Your task to perform on an android device: turn on improve location accuracy Image 0: 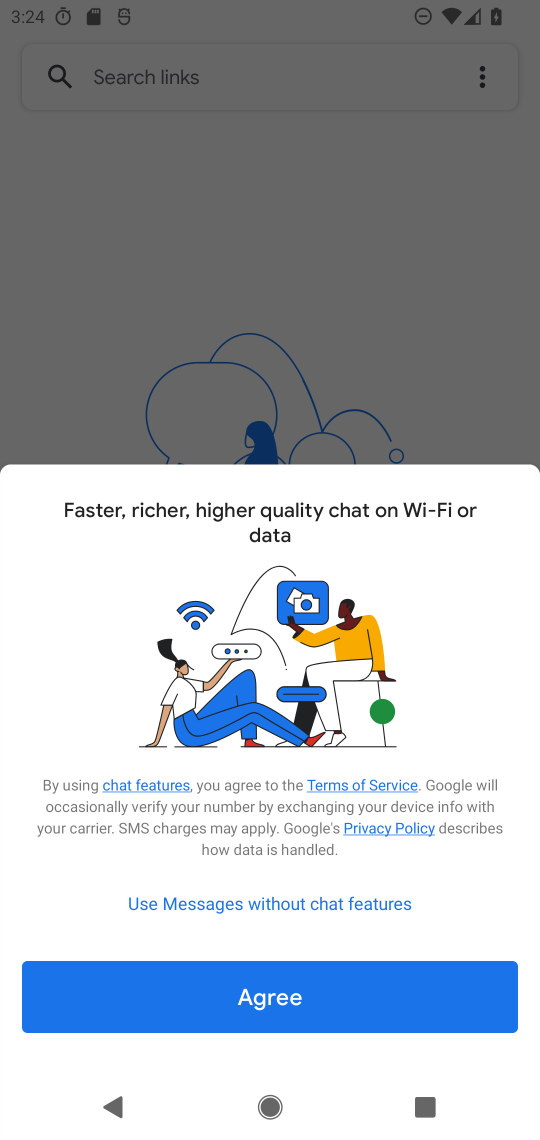
Step 0: press home button
Your task to perform on an android device: turn on improve location accuracy Image 1: 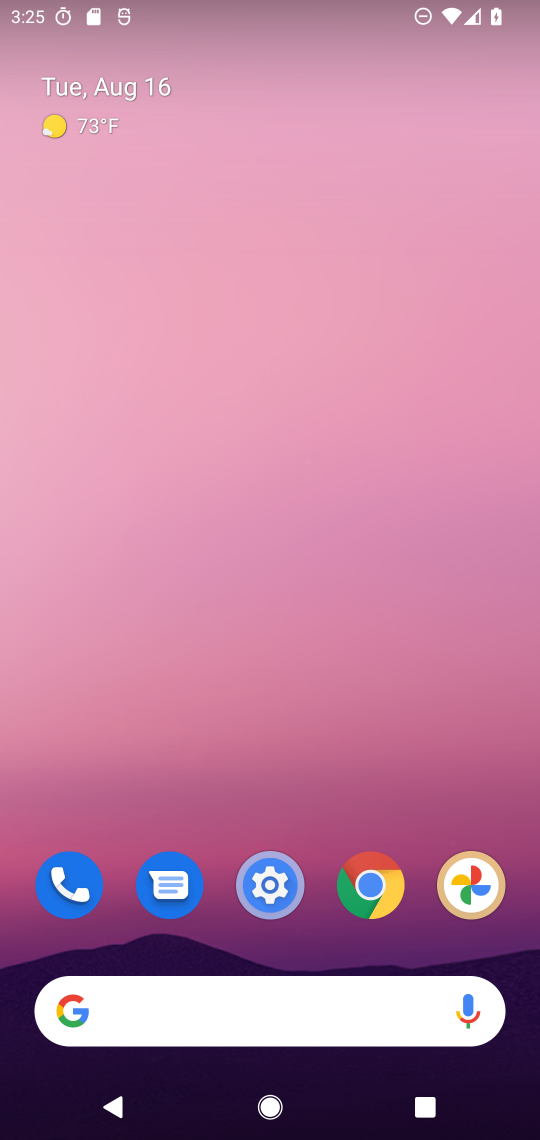
Step 1: drag from (310, 886) to (294, 92)
Your task to perform on an android device: turn on improve location accuracy Image 2: 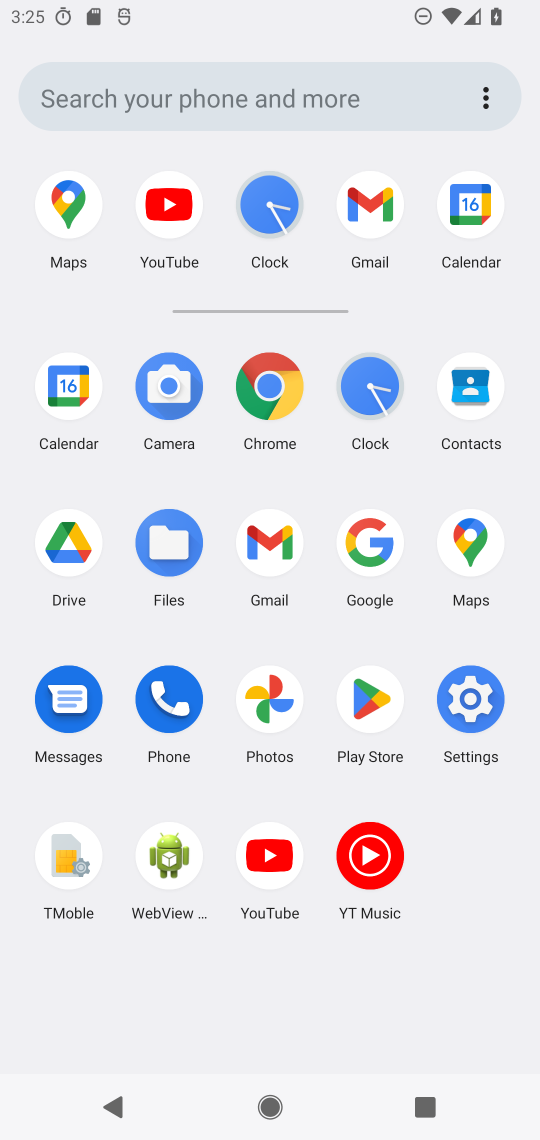
Step 2: click (464, 676)
Your task to perform on an android device: turn on improve location accuracy Image 3: 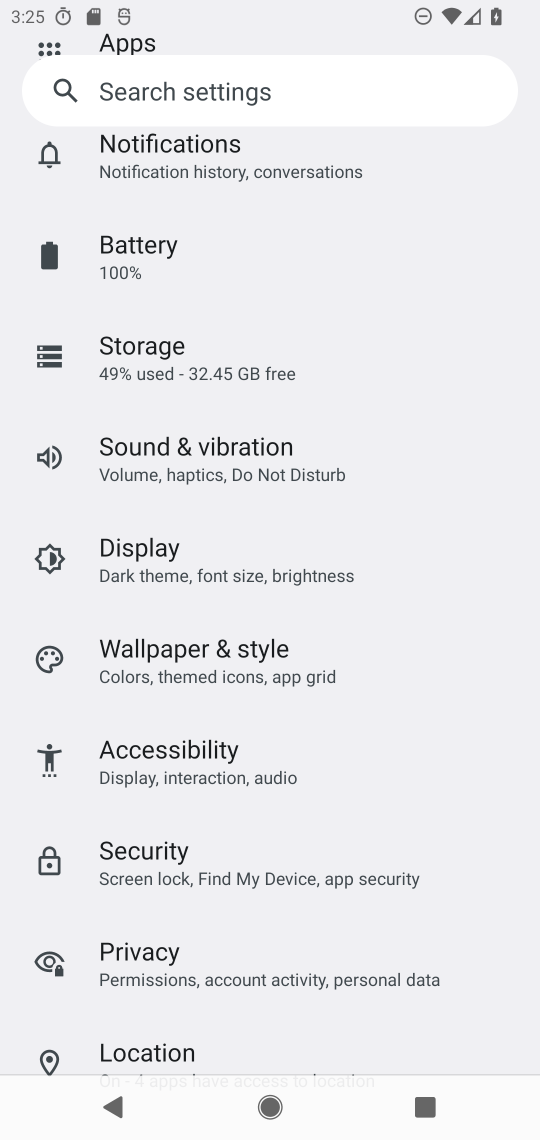
Step 3: drag from (234, 937) to (339, 217)
Your task to perform on an android device: turn on improve location accuracy Image 4: 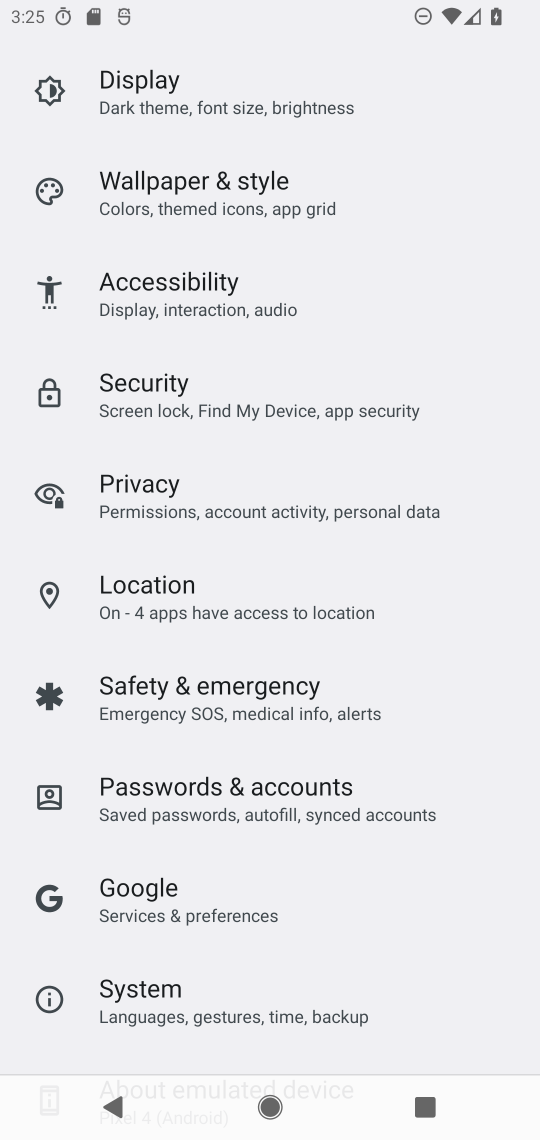
Step 4: click (220, 586)
Your task to perform on an android device: turn on improve location accuracy Image 5: 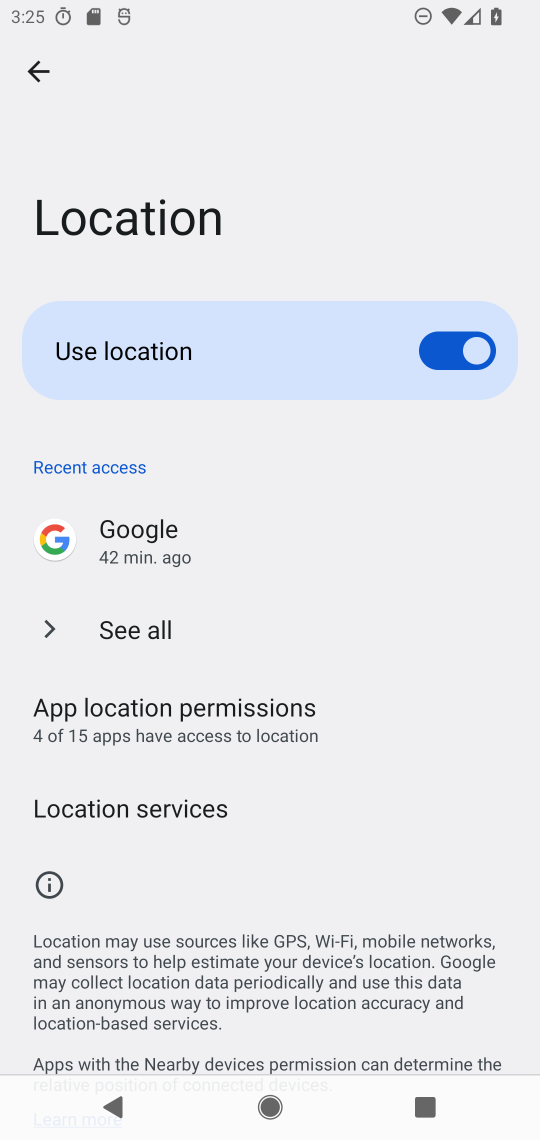
Step 5: click (188, 795)
Your task to perform on an android device: turn on improve location accuracy Image 6: 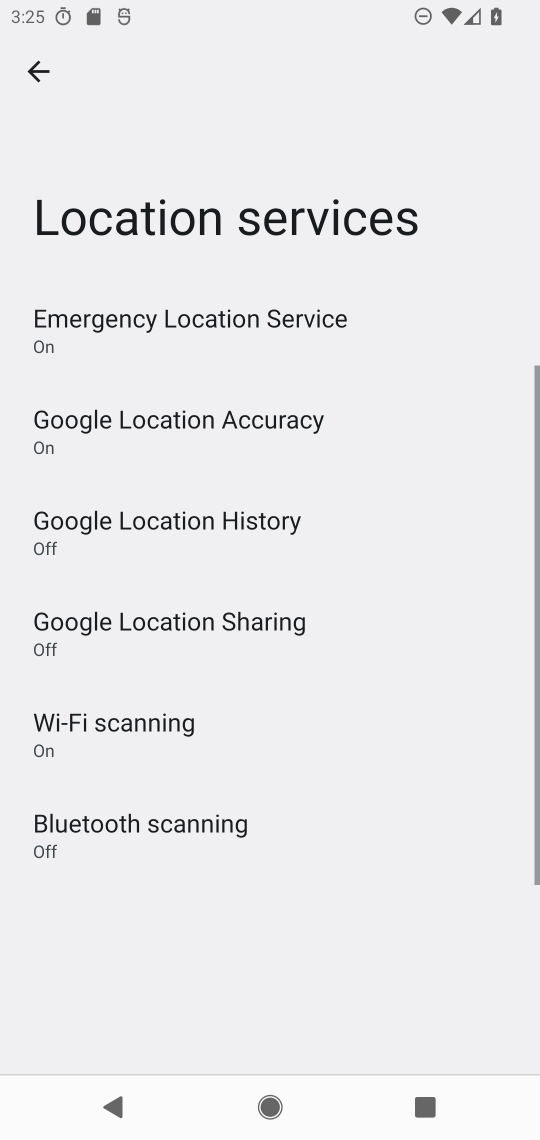
Step 6: click (199, 400)
Your task to perform on an android device: turn on improve location accuracy Image 7: 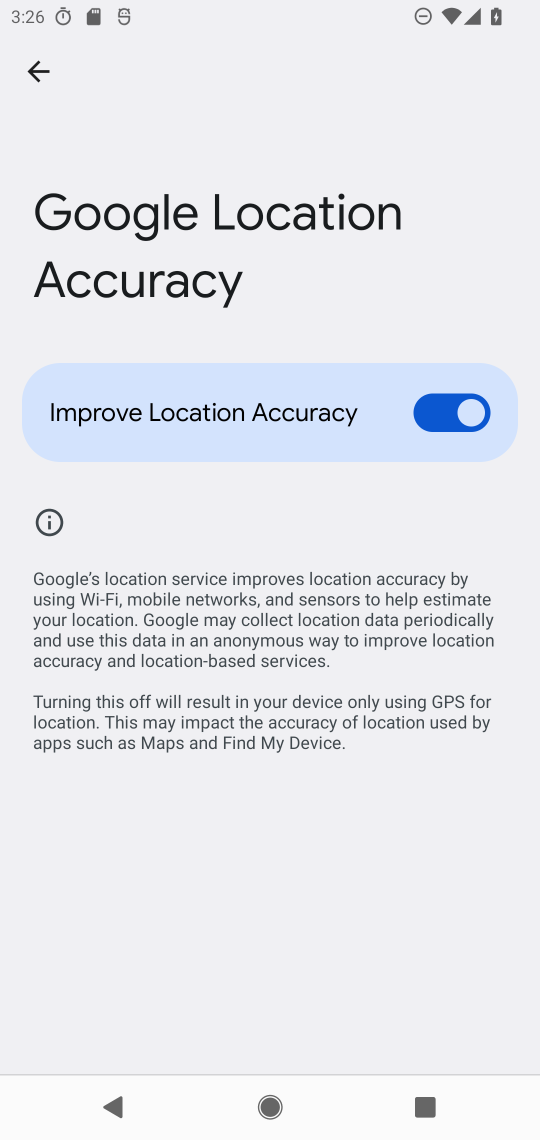
Step 7: task complete